Your task to perform on an android device: What is the news today? Image 0: 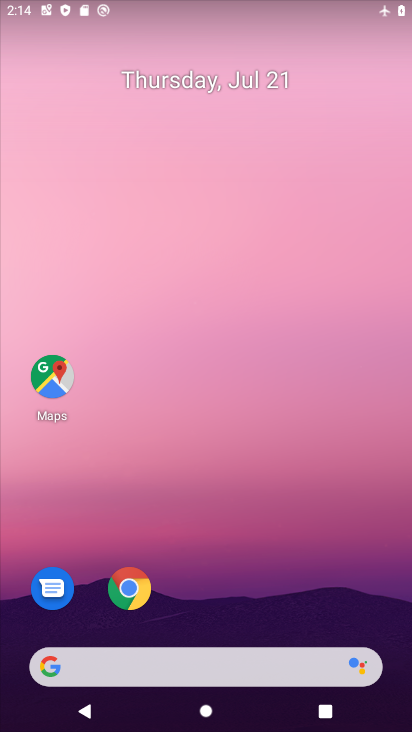
Step 0: drag from (195, 622) to (256, 99)
Your task to perform on an android device: What is the news today? Image 1: 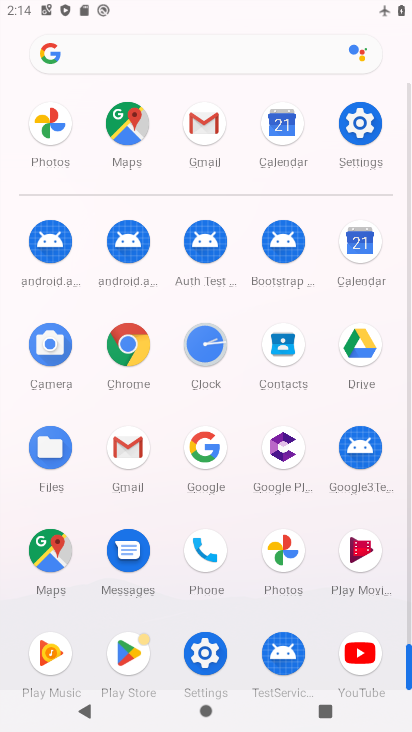
Step 1: click (141, 57)
Your task to perform on an android device: What is the news today? Image 2: 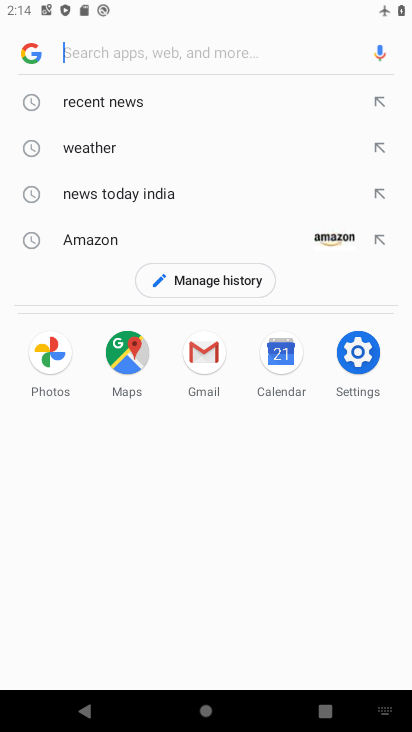
Step 2: click (95, 57)
Your task to perform on an android device: What is the news today? Image 3: 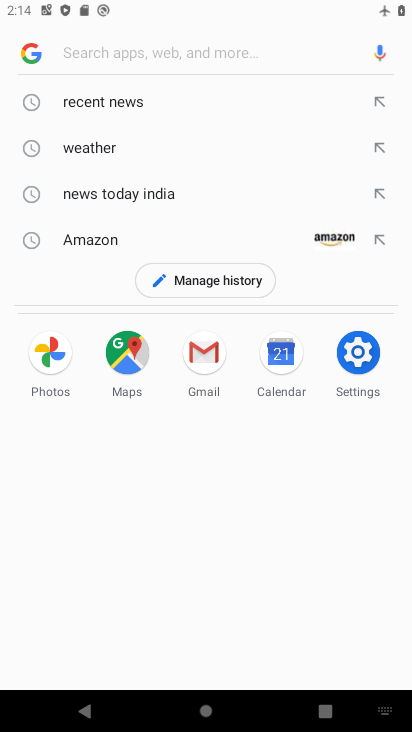
Step 3: type "news today?"
Your task to perform on an android device: What is the news today? Image 4: 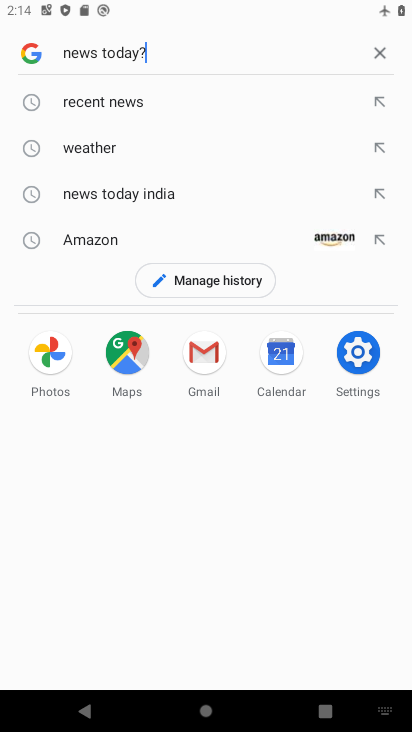
Step 4: type ""
Your task to perform on an android device: What is the news today? Image 5: 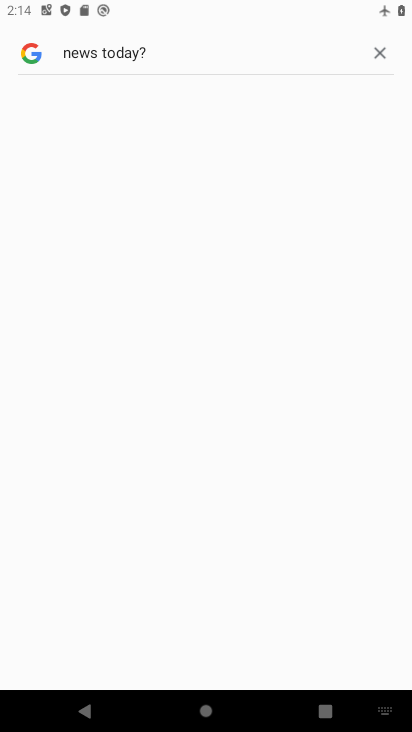
Step 5: click (108, 103)
Your task to perform on an android device: What is the news today? Image 6: 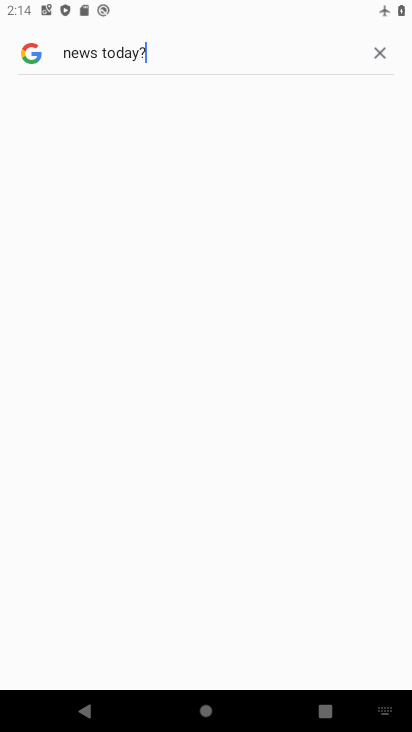
Step 6: click (122, 105)
Your task to perform on an android device: What is the news today? Image 7: 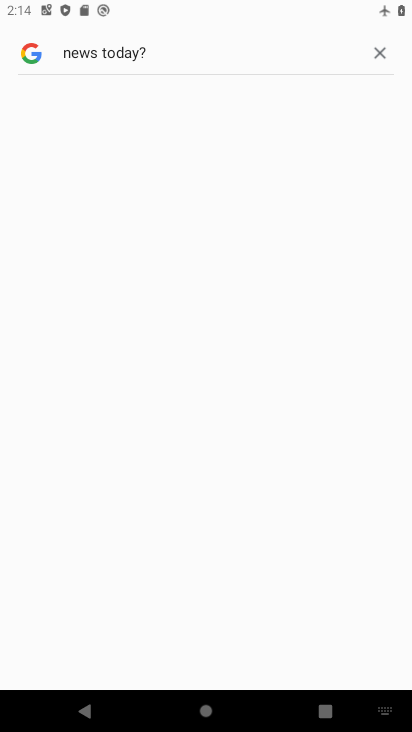
Step 7: drag from (283, 335) to (321, 150)
Your task to perform on an android device: What is the news today? Image 8: 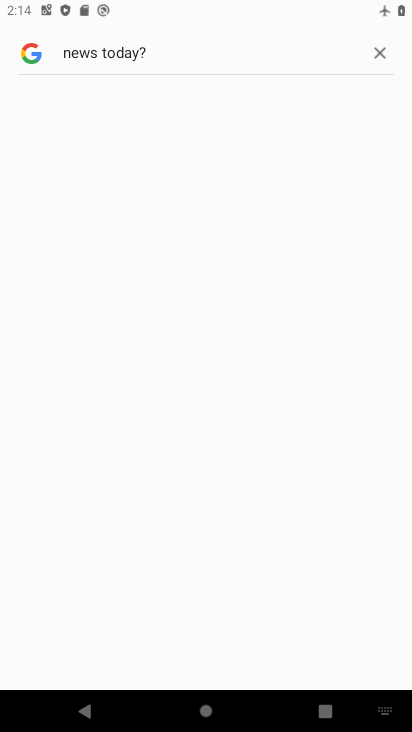
Step 8: drag from (78, 419) to (142, 66)
Your task to perform on an android device: What is the news today? Image 9: 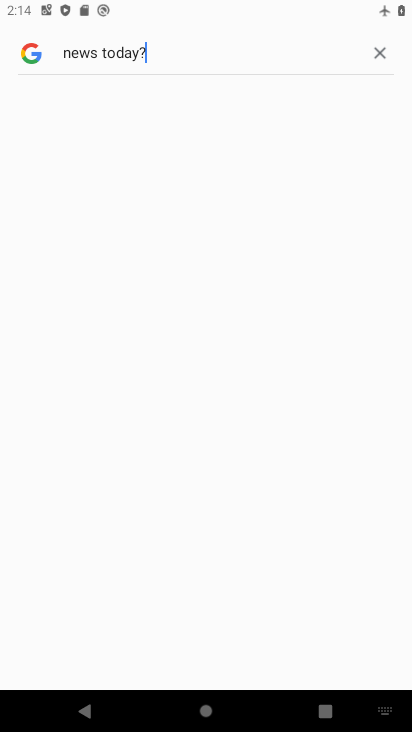
Step 9: click (124, 332)
Your task to perform on an android device: What is the news today? Image 10: 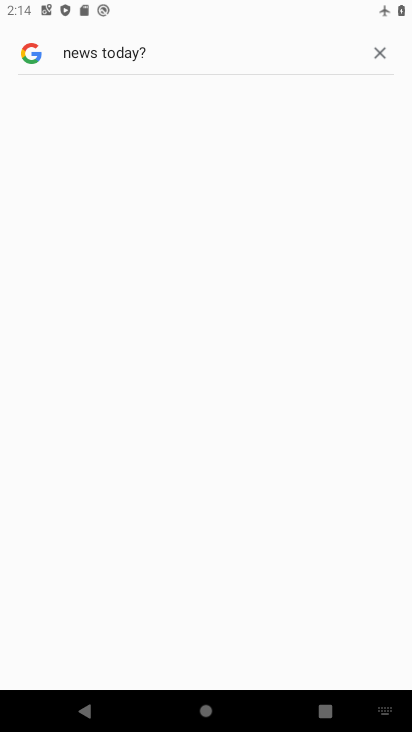
Step 10: click (191, 231)
Your task to perform on an android device: What is the news today? Image 11: 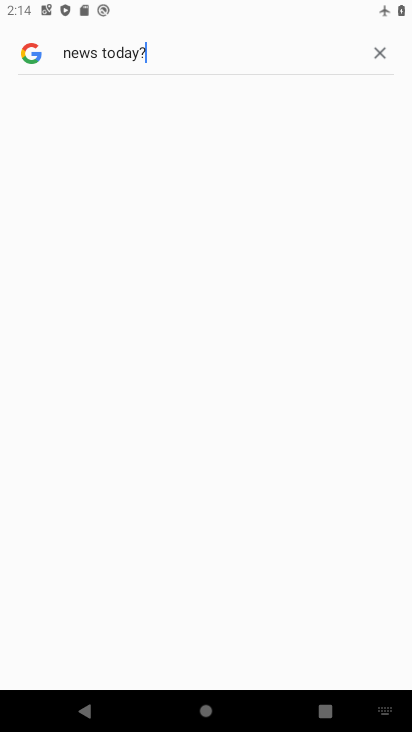
Step 11: click (184, 142)
Your task to perform on an android device: What is the news today? Image 12: 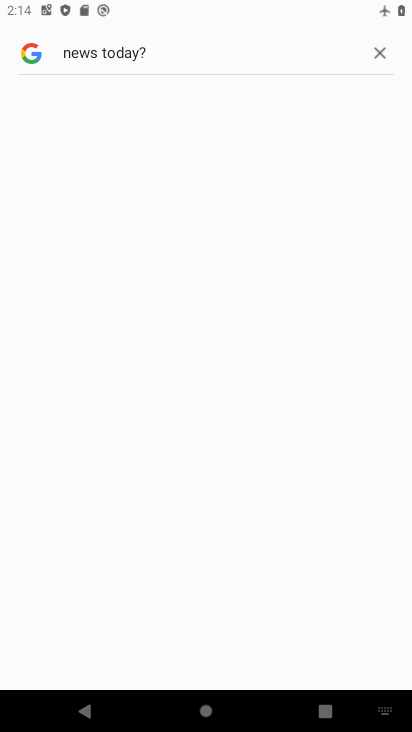
Step 12: task complete